Your task to perform on an android device: open app "Duolingo: language lessons" (install if not already installed) Image 0: 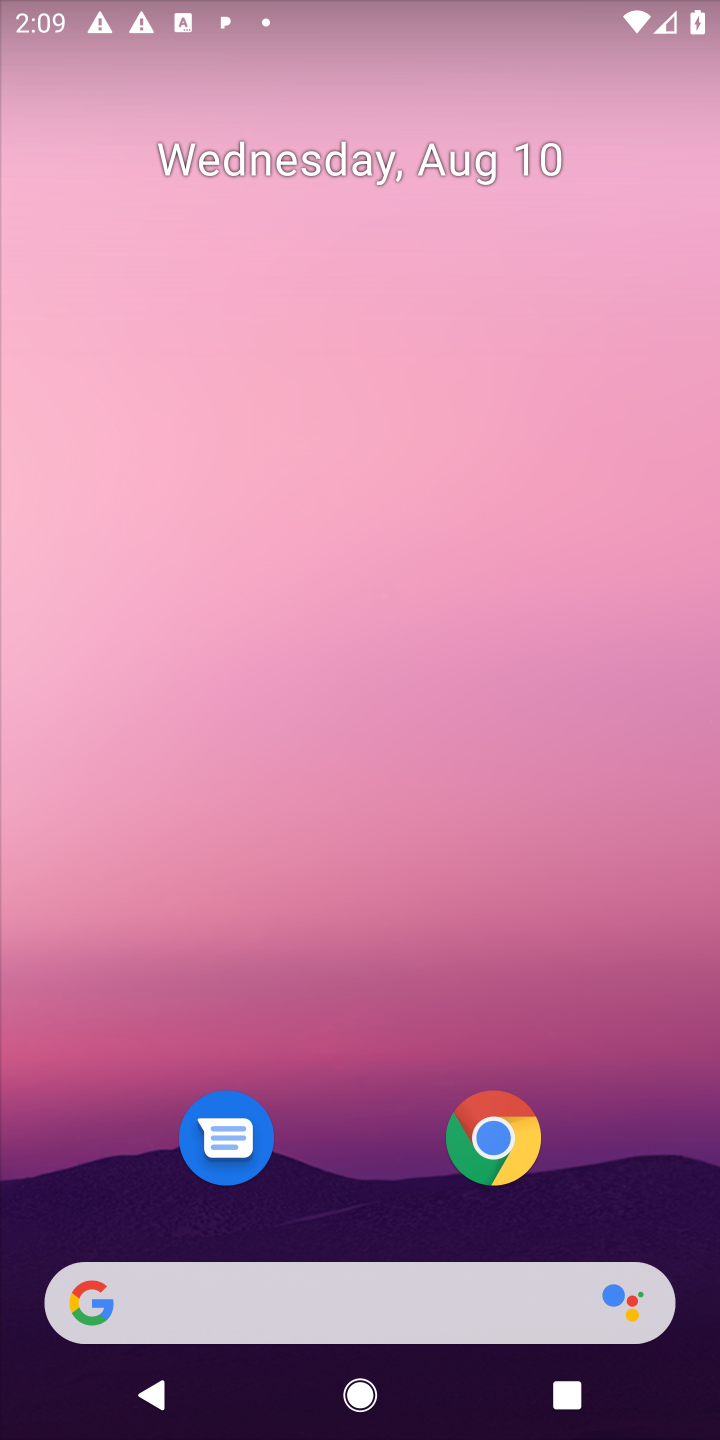
Step 0: press home button
Your task to perform on an android device: open app "Duolingo: language lessons" (install if not already installed) Image 1: 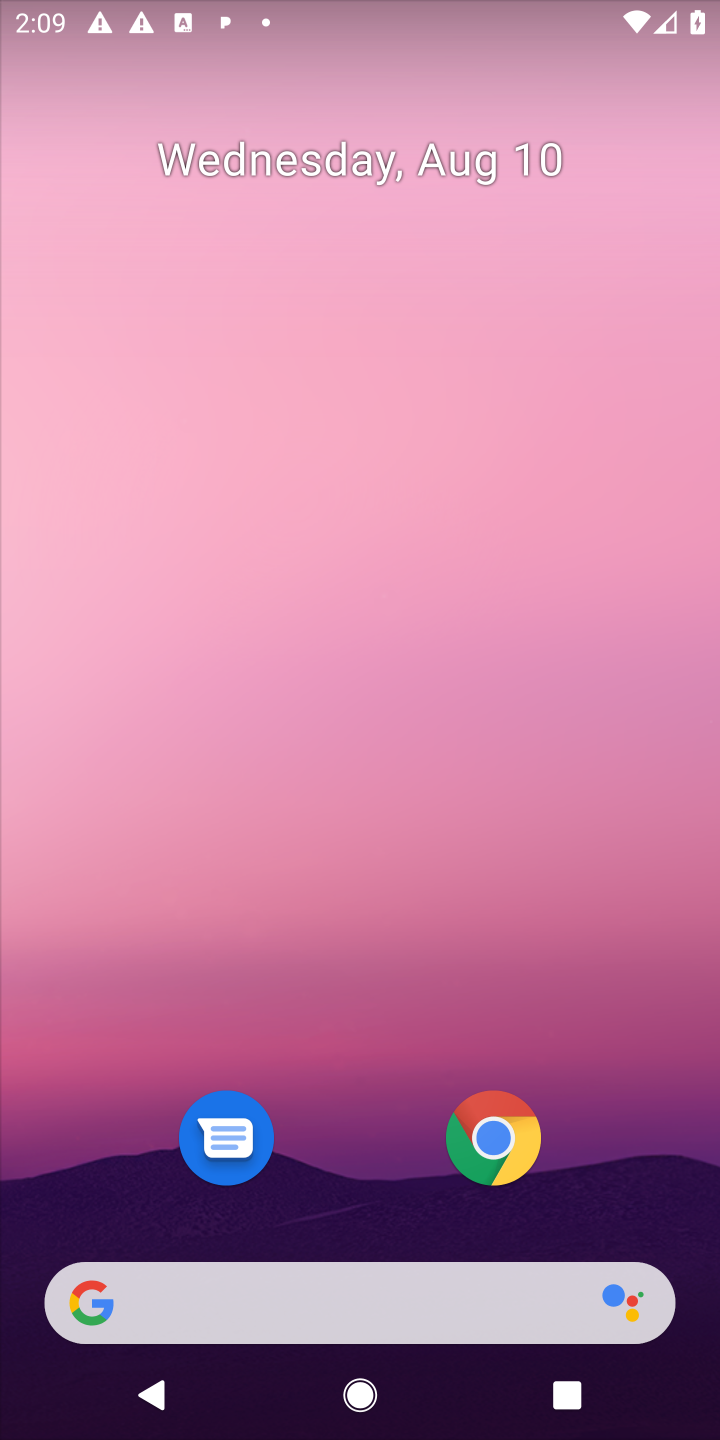
Step 1: drag from (605, 1164) to (655, 127)
Your task to perform on an android device: open app "Duolingo: language lessons" (install if not already installed) Image 2: 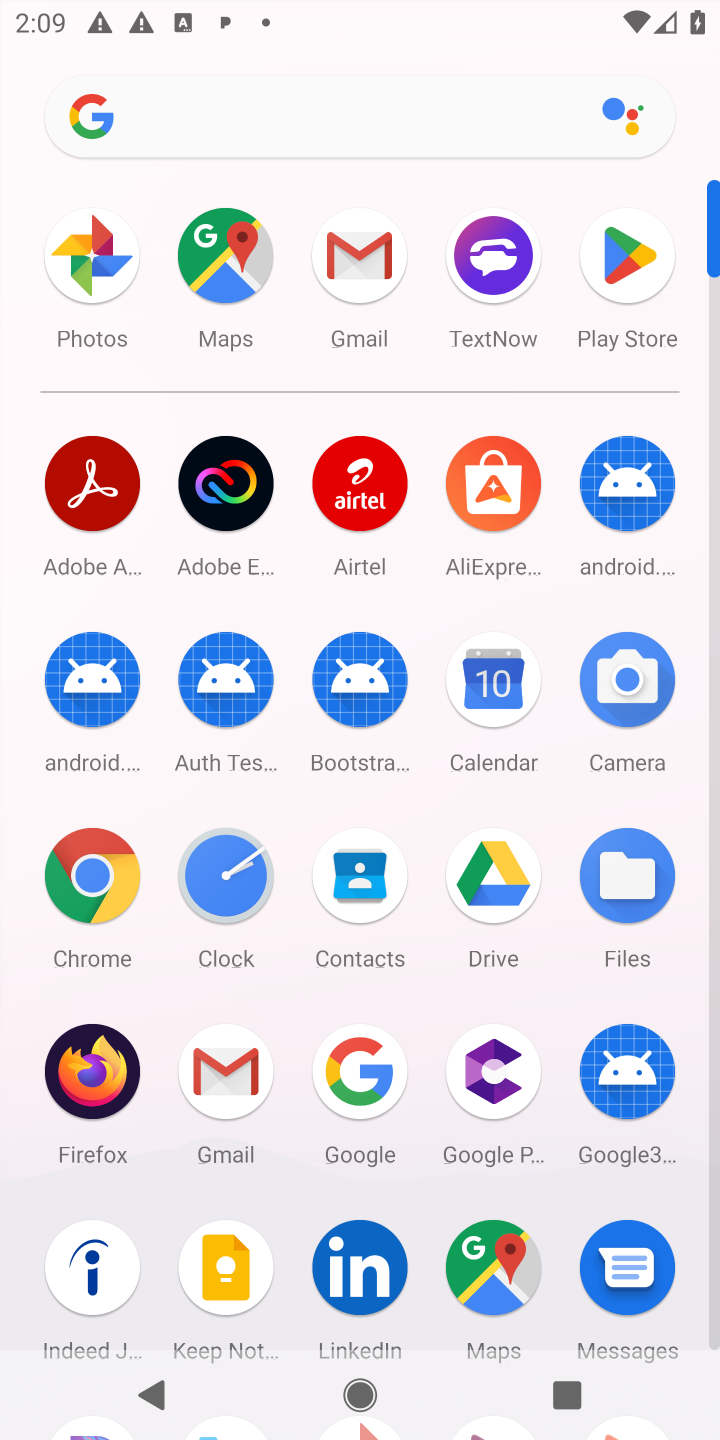
Step 2: click (629, 255)
Your task to perform on an android device: open app "Duolingo: language lessons" (install if not already installed) Image 3: 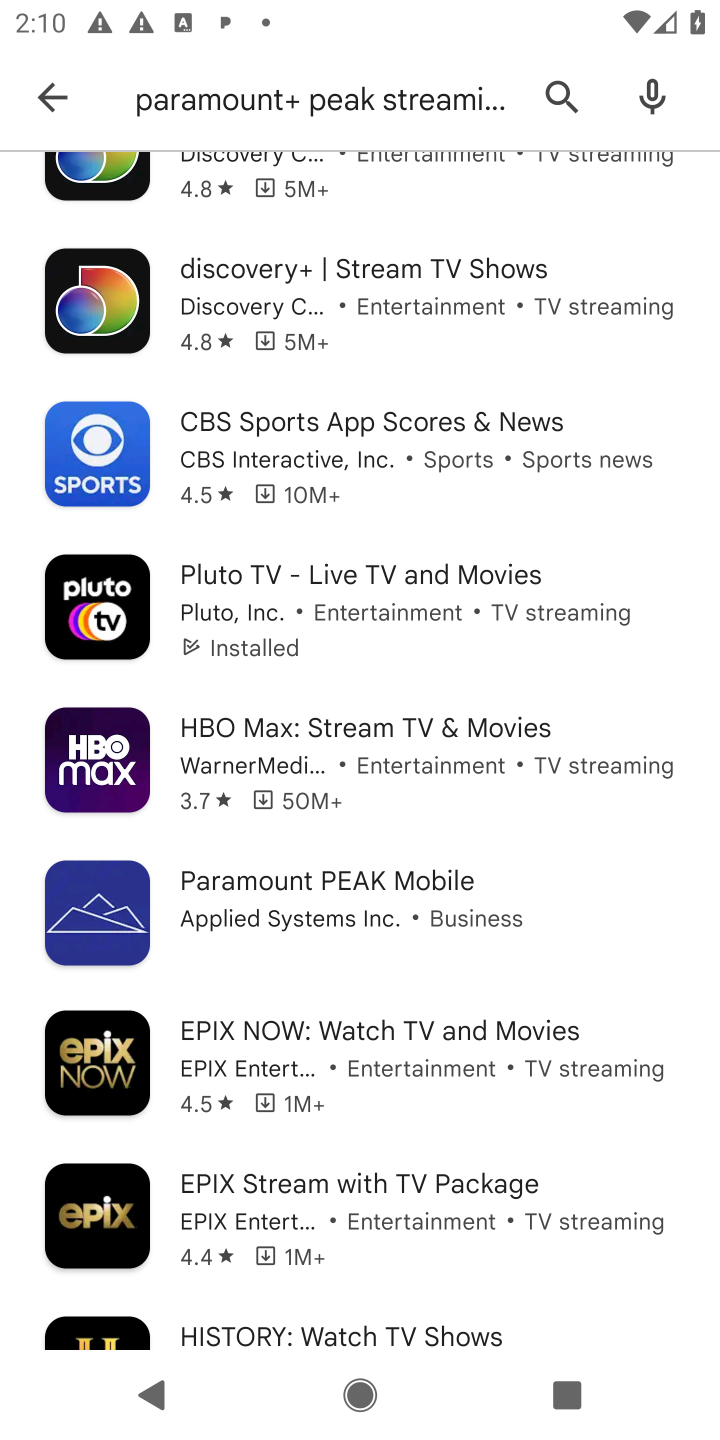
Step 3: click (556, 81)
Your task to perform on an android device: open app "Duolingo: language lessons" (install if not already installed) Image 4: 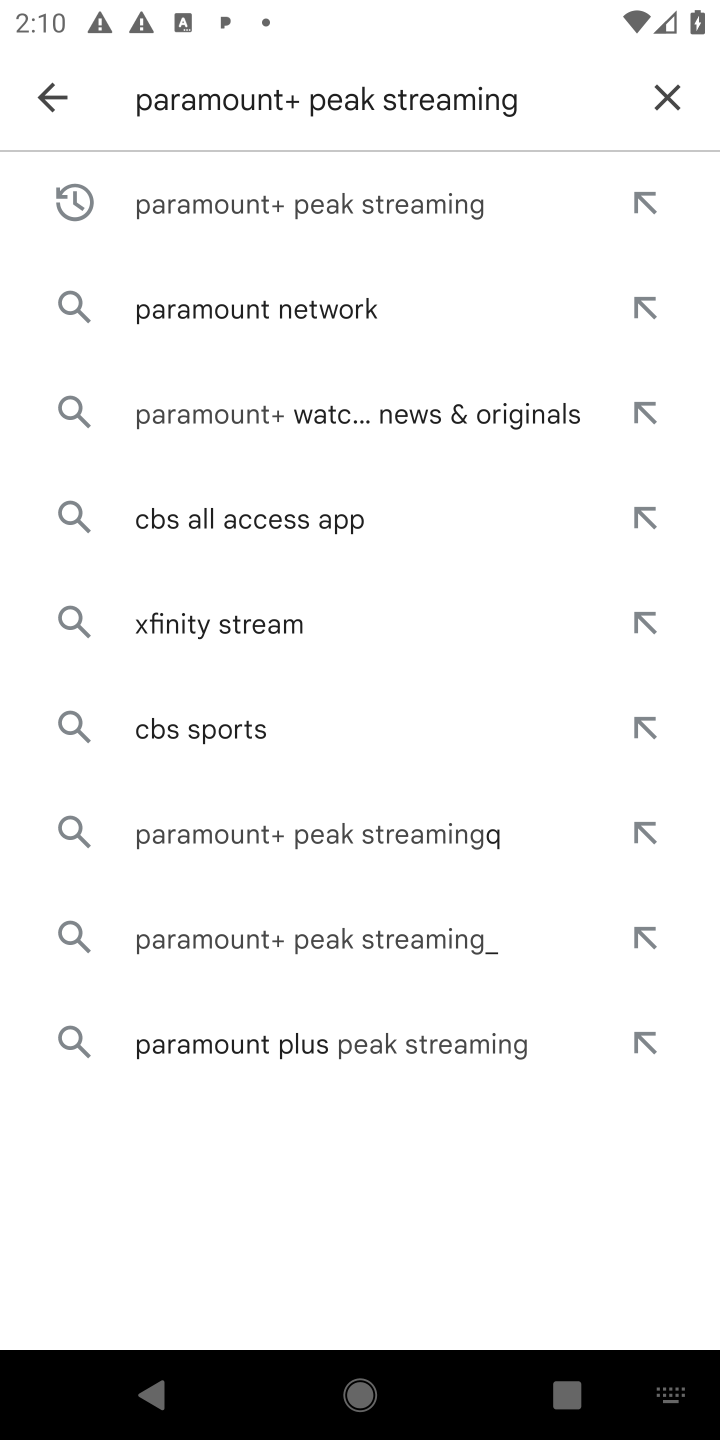
Step 4: click (665, 94)
Your task to perform on an android device: open app "Duolingo: language lessons" (install if not already installed) Image 5: 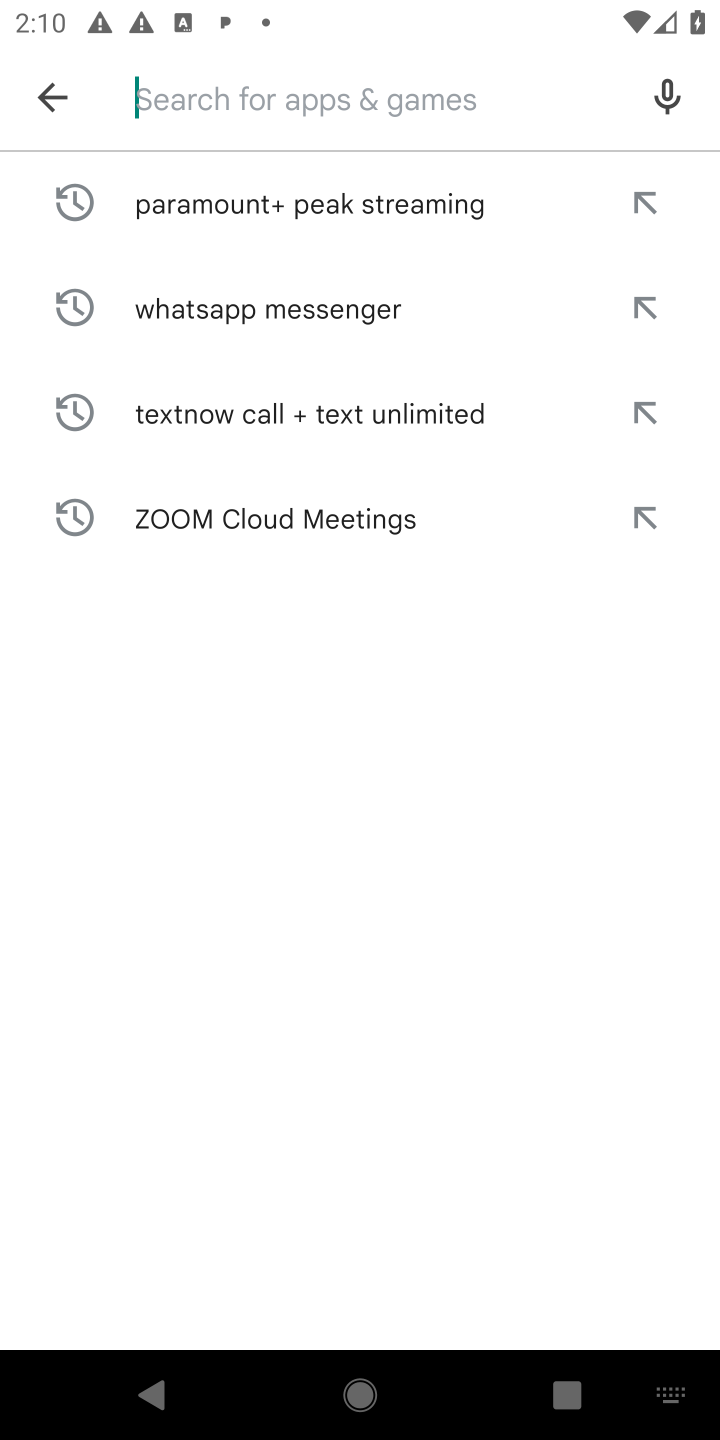
Step 5: press enter
Your task to perform on an android device: open app "Duolingo: language lessons" (install if not already installed) Image 6: 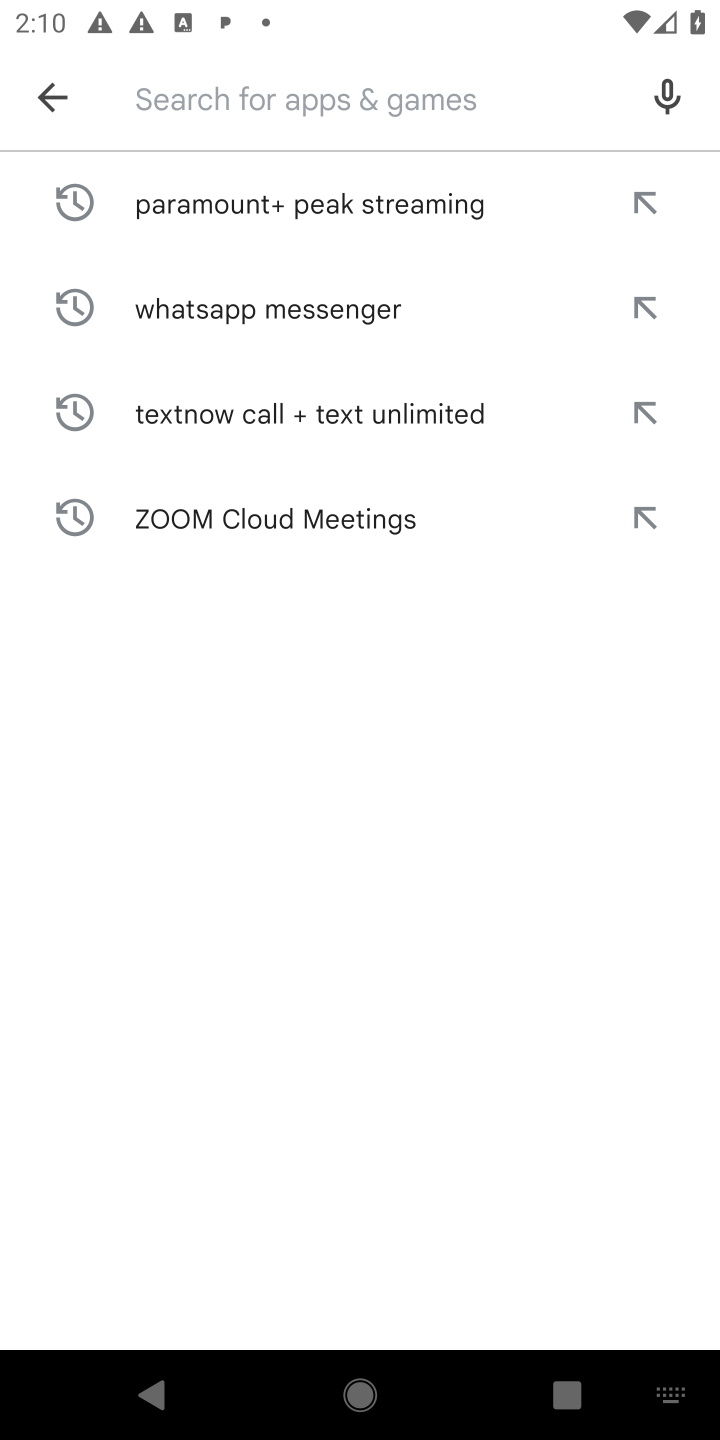
Step 6: type "Duolingo: language lessons"
Your task to perform on an android device: open app "Duolingo: language lessons" (install if not already installed) Image 7: 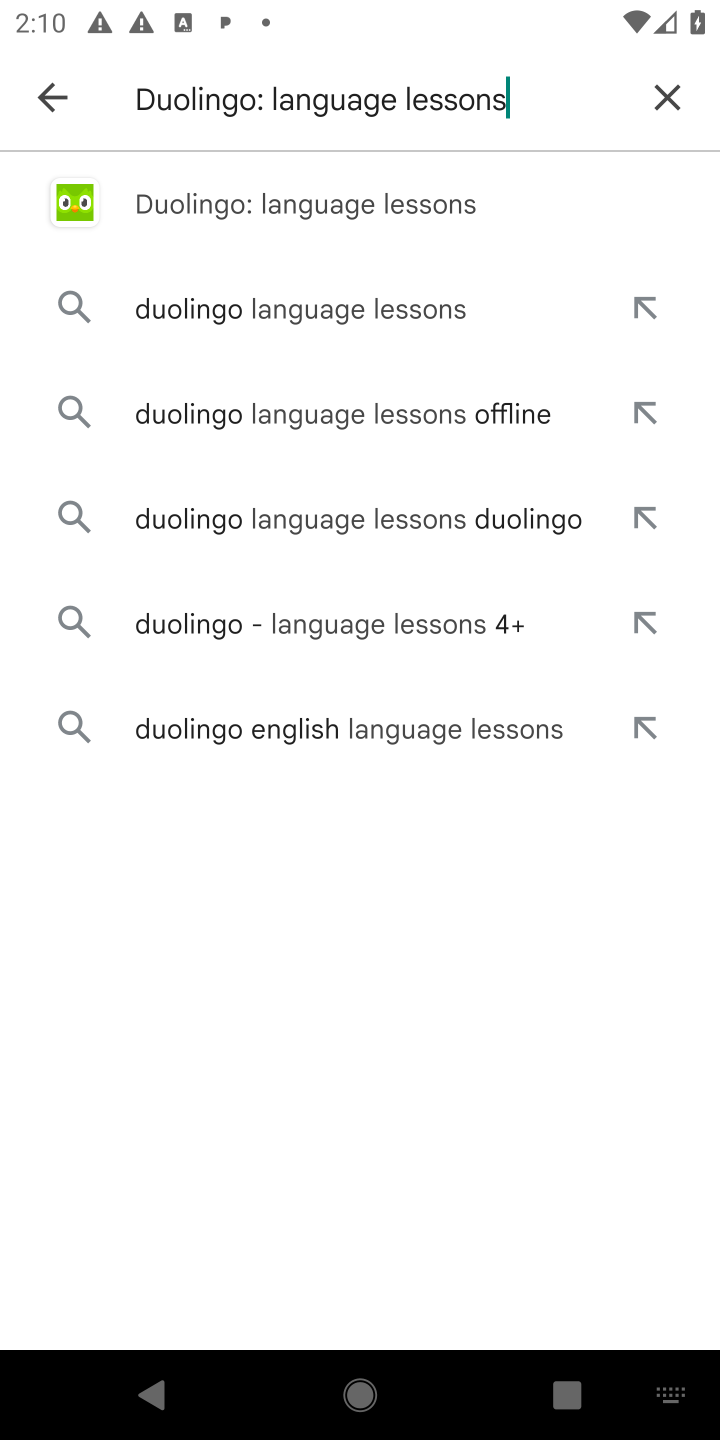
Step 7: click (444, 197)
Your task to perform on an android device: open app "Duolingo: language lessons" (install if not already installed) Image 8: 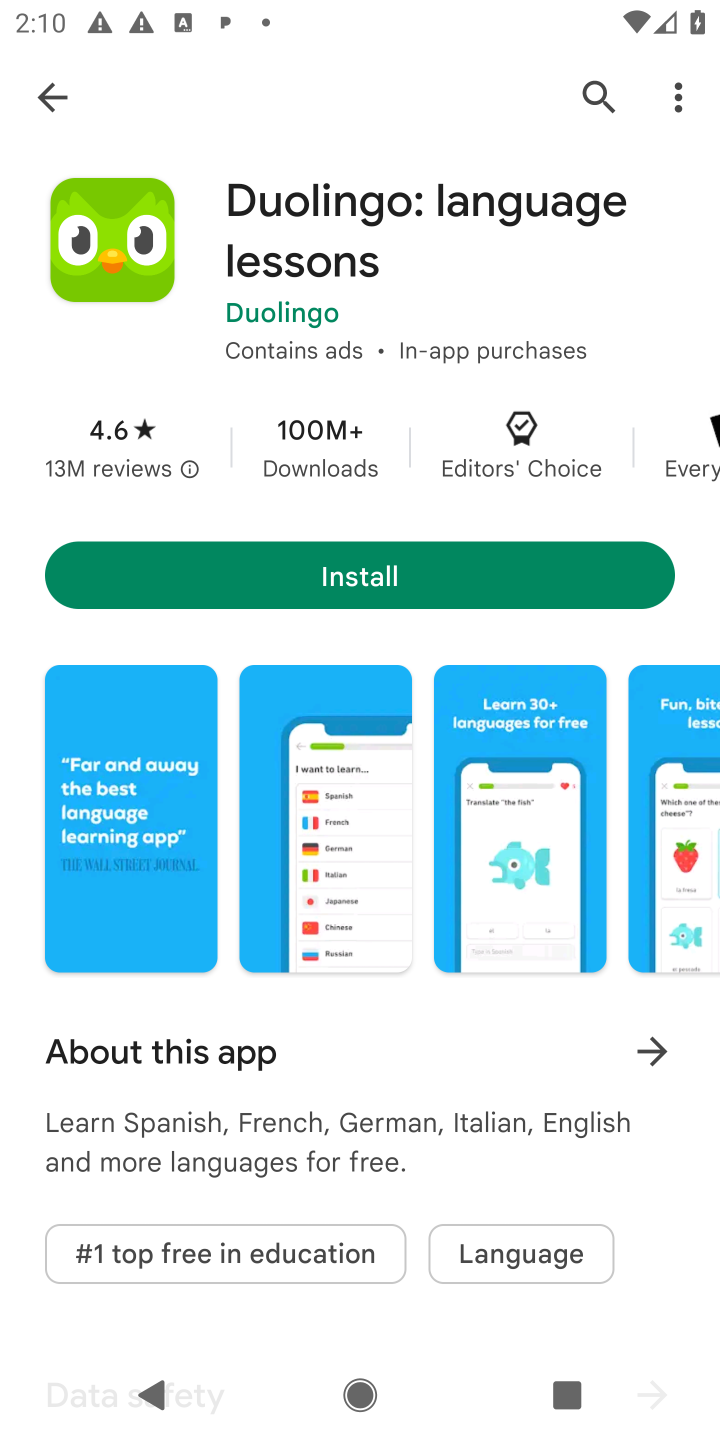
Step 8: click (392, 589)
Your task to perform on an android device: open app "Duolingo: language lessons" (install if not already installed) Image 9: 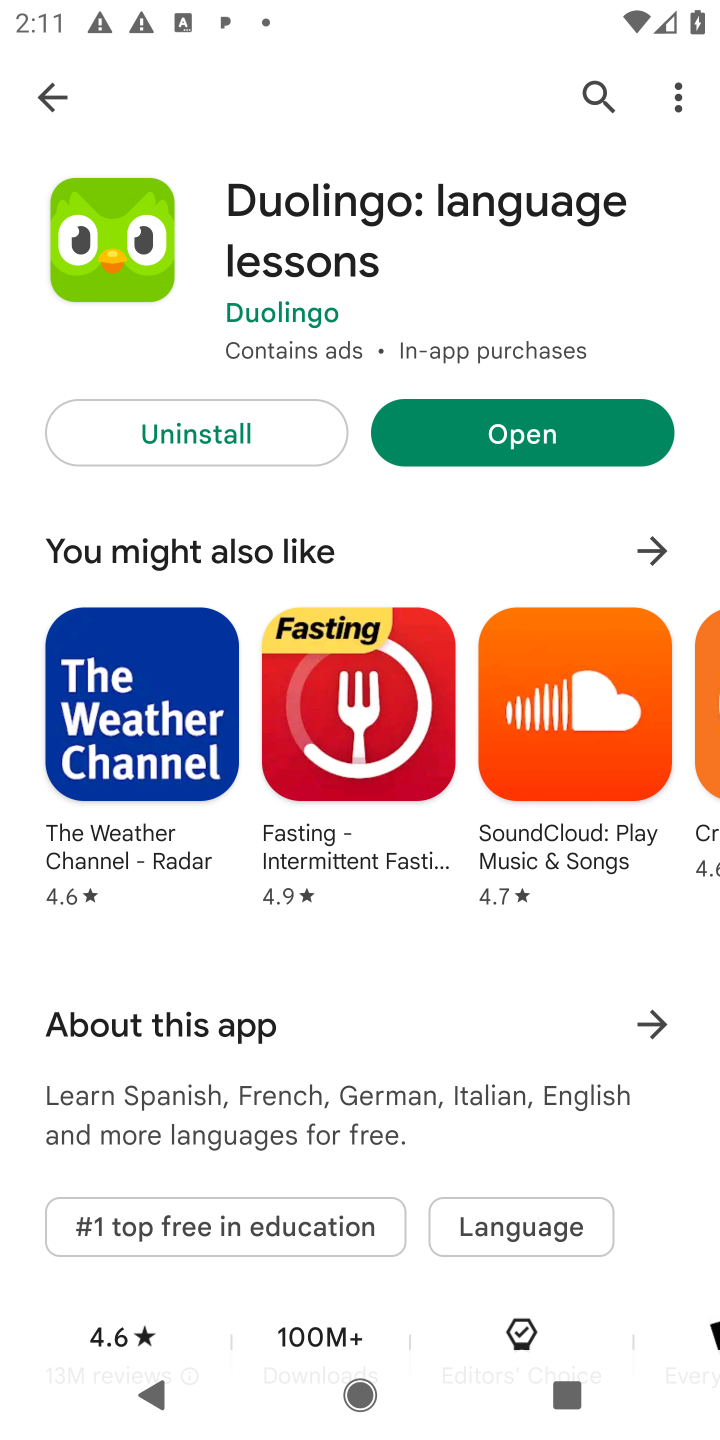
Step 9: click (573, 420)
Your task to perform on an android device: open app "Duolingo: language lessons" (install if not already installed) Image 10: 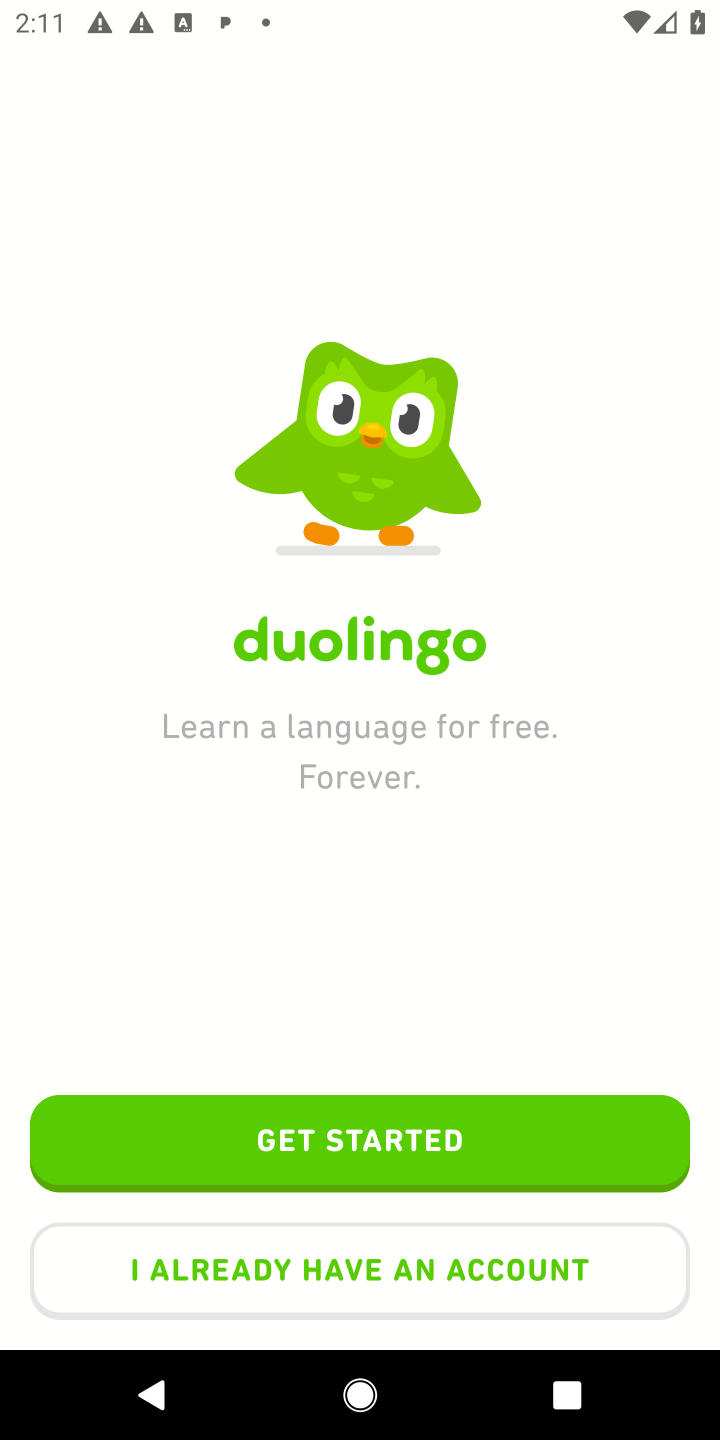
Step 10: task complete